Your task to perform on an android device: Open the phone app and click the voicemail tab. Image 0: 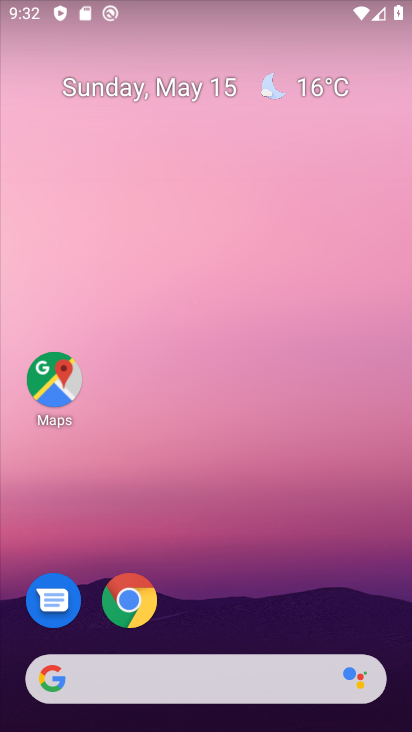
Step 0: drag from (211, 647) to (178, 20)
Your task to perform on an android device: Open the phone app and click the voicemail tab. Image 1: 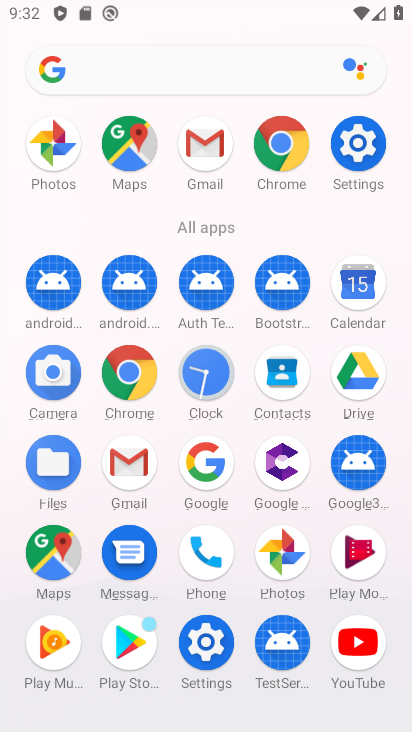
Step 1: click (190, 536)
Your task to perform on an android device: Open the phone app and click the voicemail tab. Image 2: 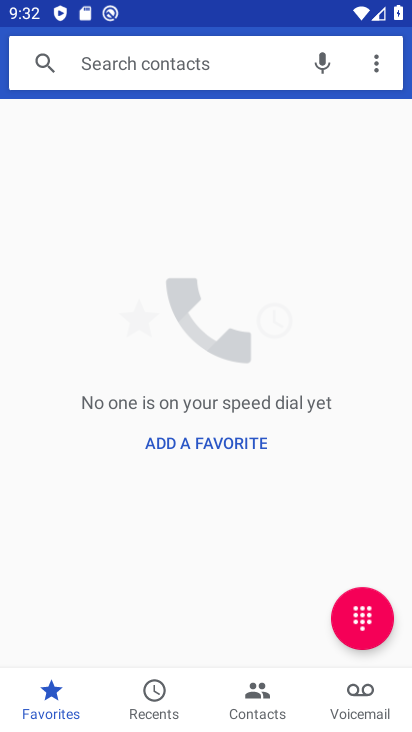
Step 2: click (345, 688)
Your task to perform on an android device: Open the phone app and click the voicemail tab. Image 3: 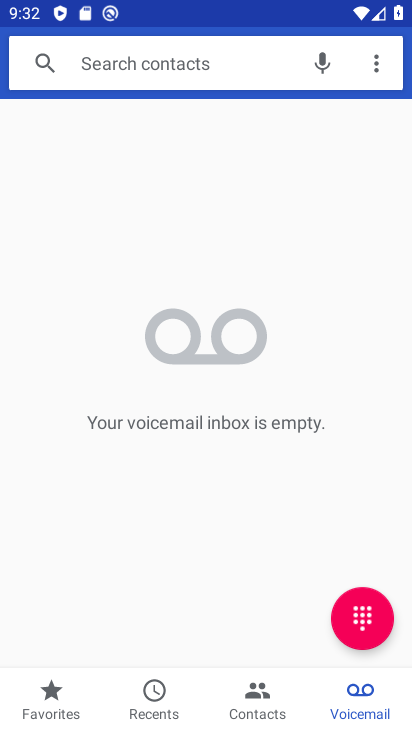
Step 3: task complete